Your task to perform on an android device: turn pop-ups off in chrome Image 0: 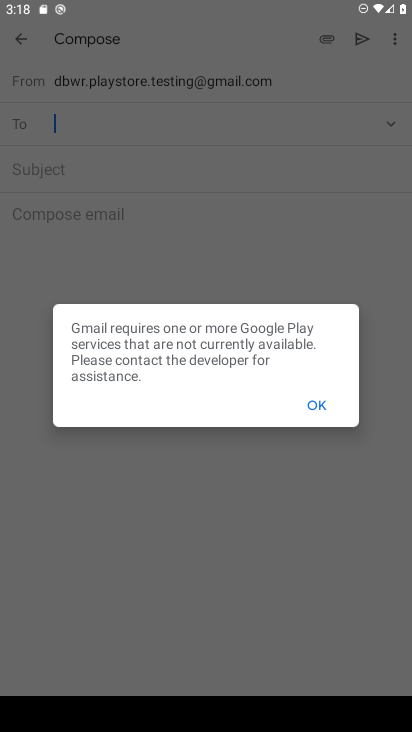
Step 0: drag from (281, 612) to (384, 96)
Your task to perform on an android device: turn pop-ups off in chrome Image 1: 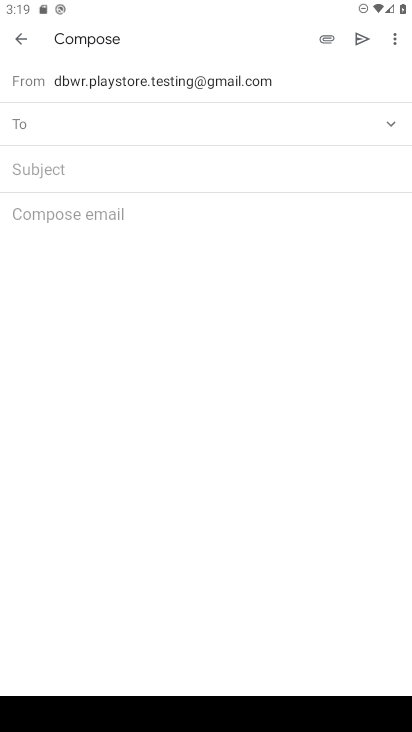
Step 1: press home button
Your task to perform on an android device: turn pop-ups off in chrome Image 2: 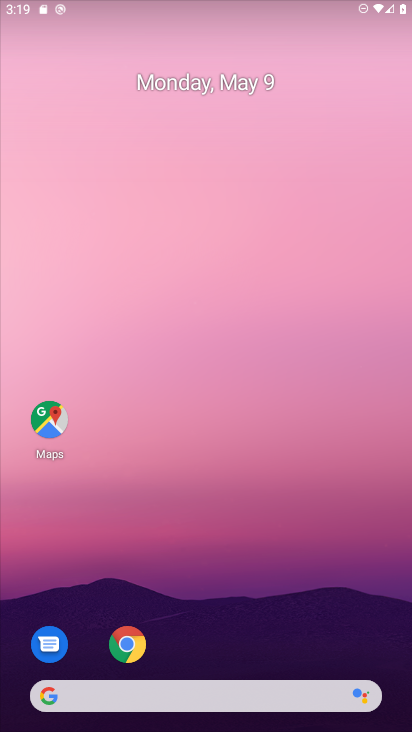
Step 2: drag from (262, 630) to (296, 52)
Your task to perform on an android device: turn pop-ups off in chrome Image 3: 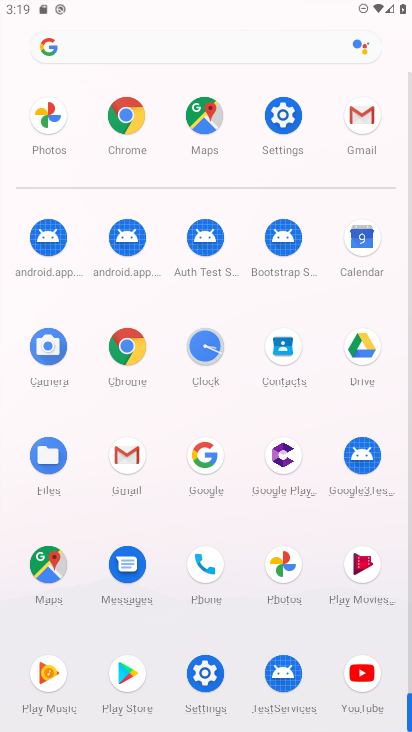
Step 3: click (124, 386)
Your task to perform on an android device: turn pop-ups off in chrome Image 4: 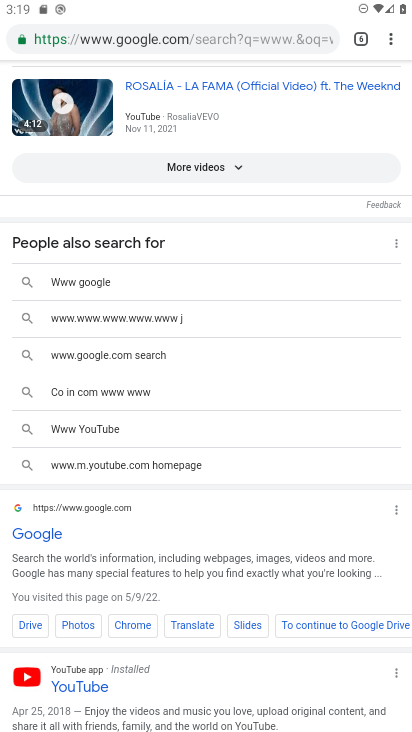
Step 4: click (392, 39)
Your task to perform on an android device: turn pop-ups off in chrome Image 5: 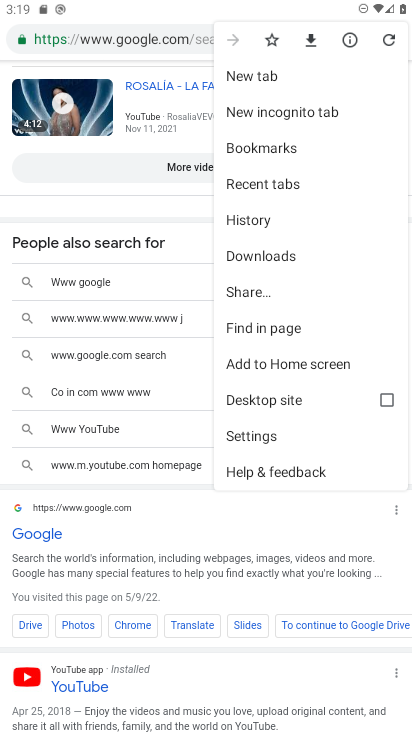
Step 5: click (244, 439)
Your task to perform on an android device: turn pop-ups off in chrome Image 6: 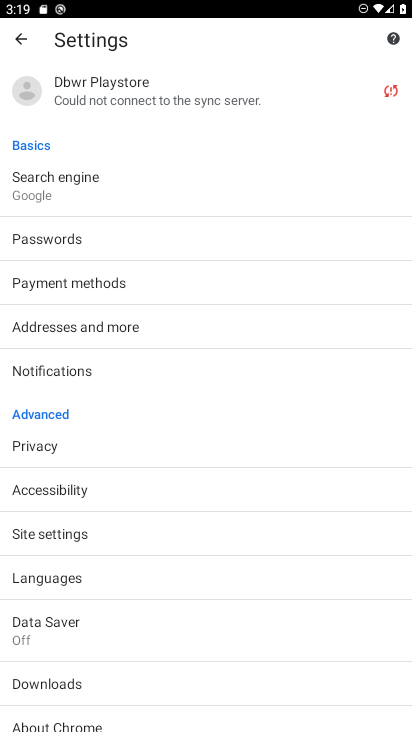
Step 6: drag from (55, 610) to (118, 289)
Your task to perform on an android device: turn pop-ups off in chrome Image 7: 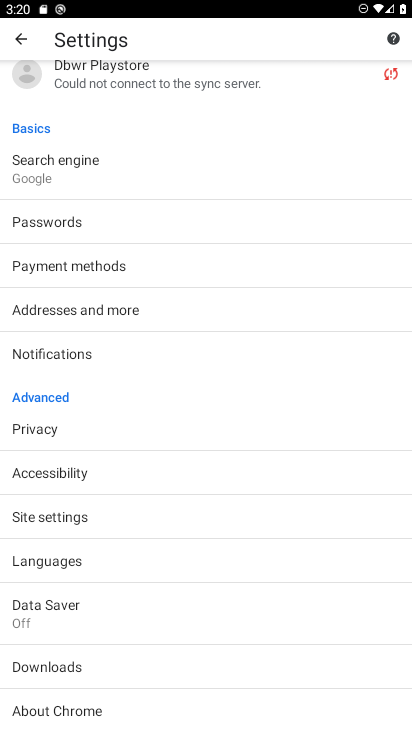
Step 7: click (59, 521)
Your task to perform on an android device: turn pop-ups off in chrome Image 8: 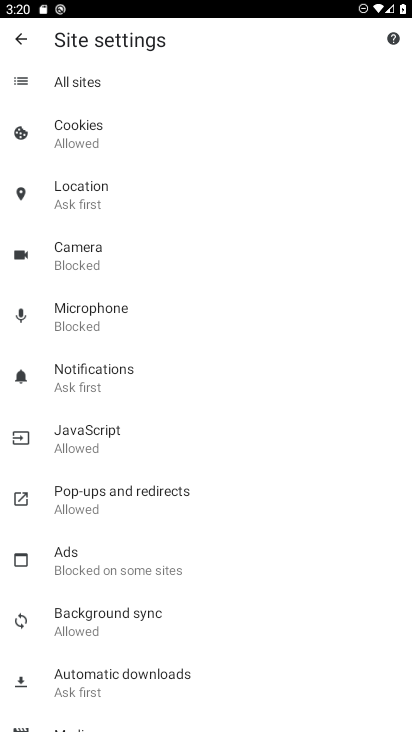
Step 8: click (141, 510)
Your task to perform on an android device: turn pop-ups off in chrome Image 9: 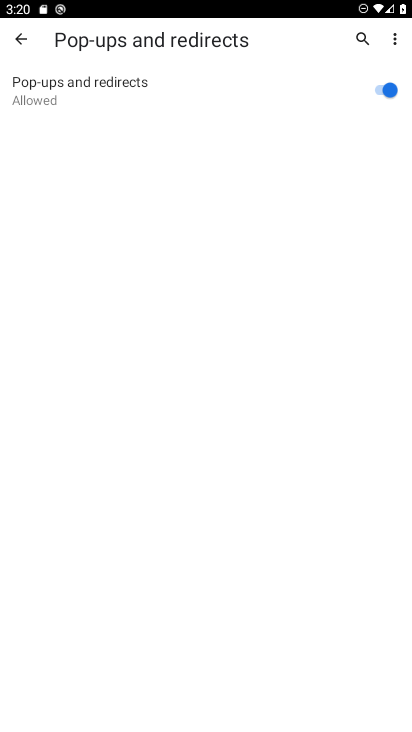
Step 9: click (375, 88)
Your task to perform on an android device: turn pop-ups off in chrome Image 10: 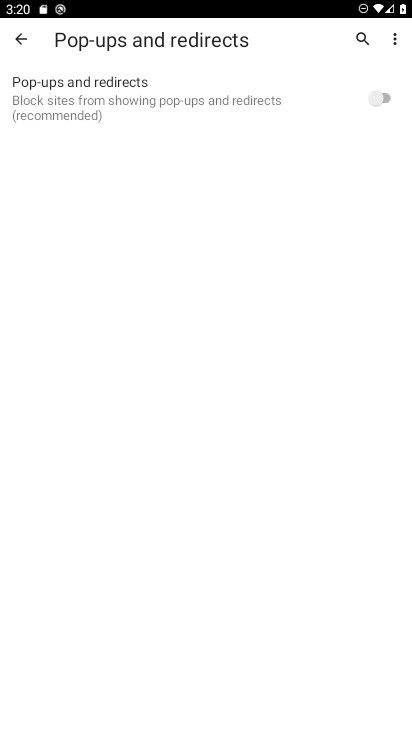
Step 10: task complete